Your task to perform on an android device: open app "File Manager" Image 0: 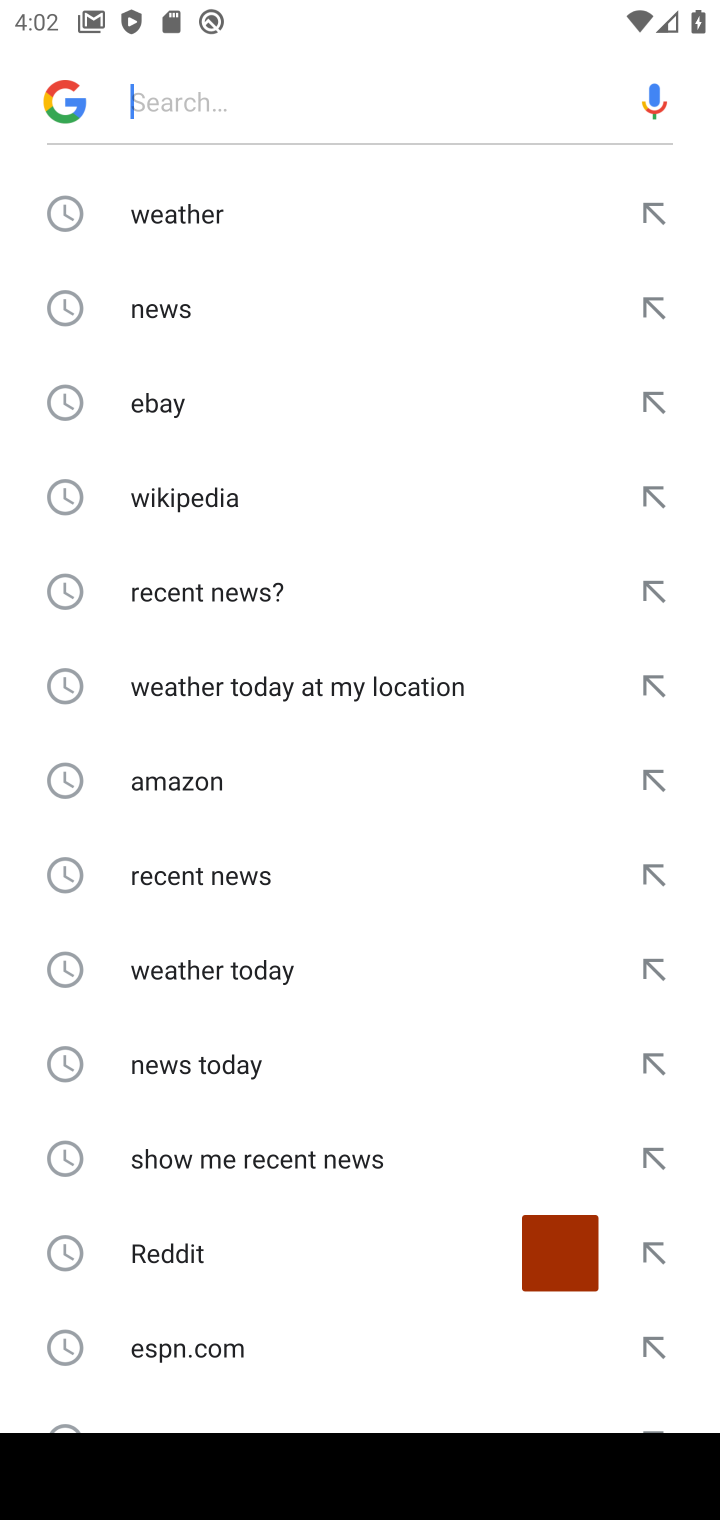
Step 0: click (565, 86)
Your task to perform on an android device: open app "File Manager" Image 1: 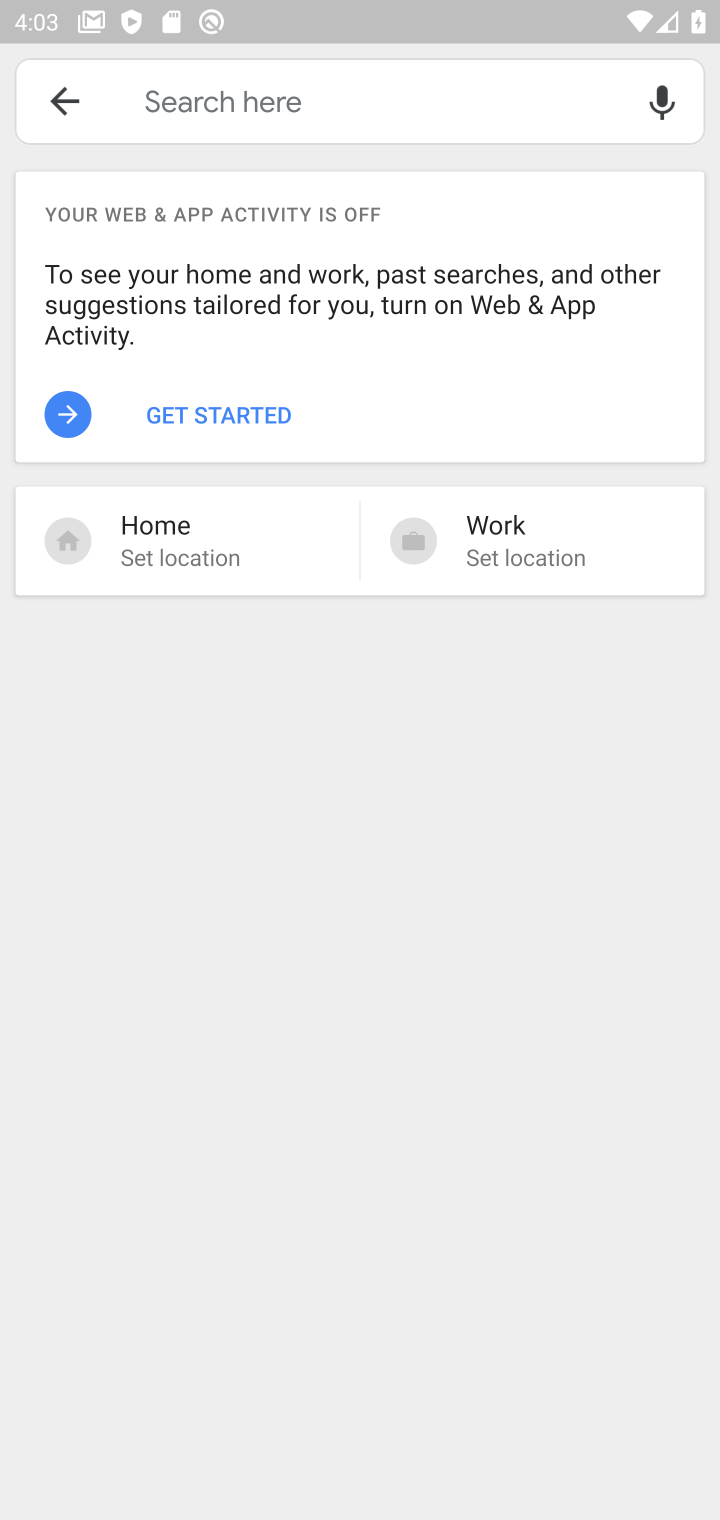
Step 1: press home button
Your task to perform on an android device: open app "File Manager" Image 2: 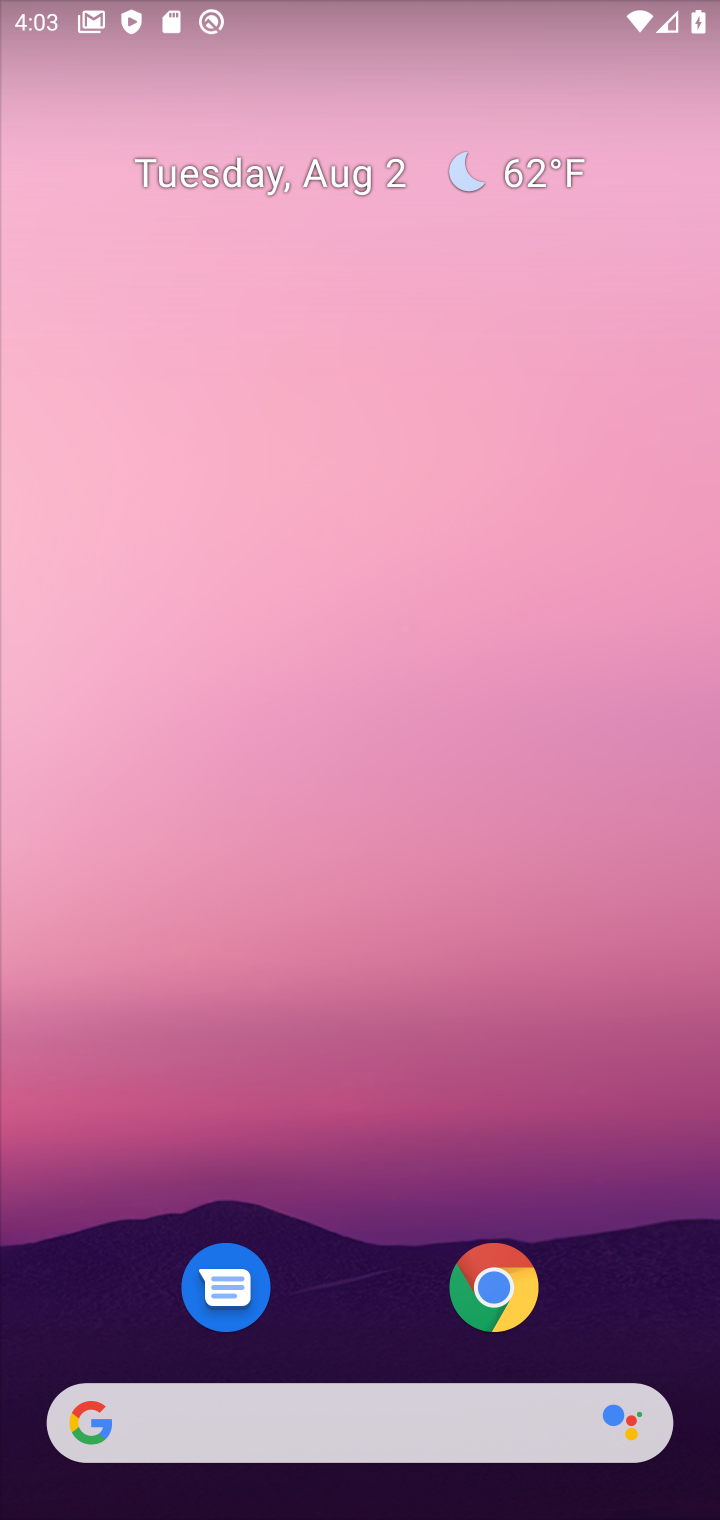
Step 2: drag from (362, 1177) to (438, 321)
Your task to perform on an android device: open app "File Manager" Image 3: 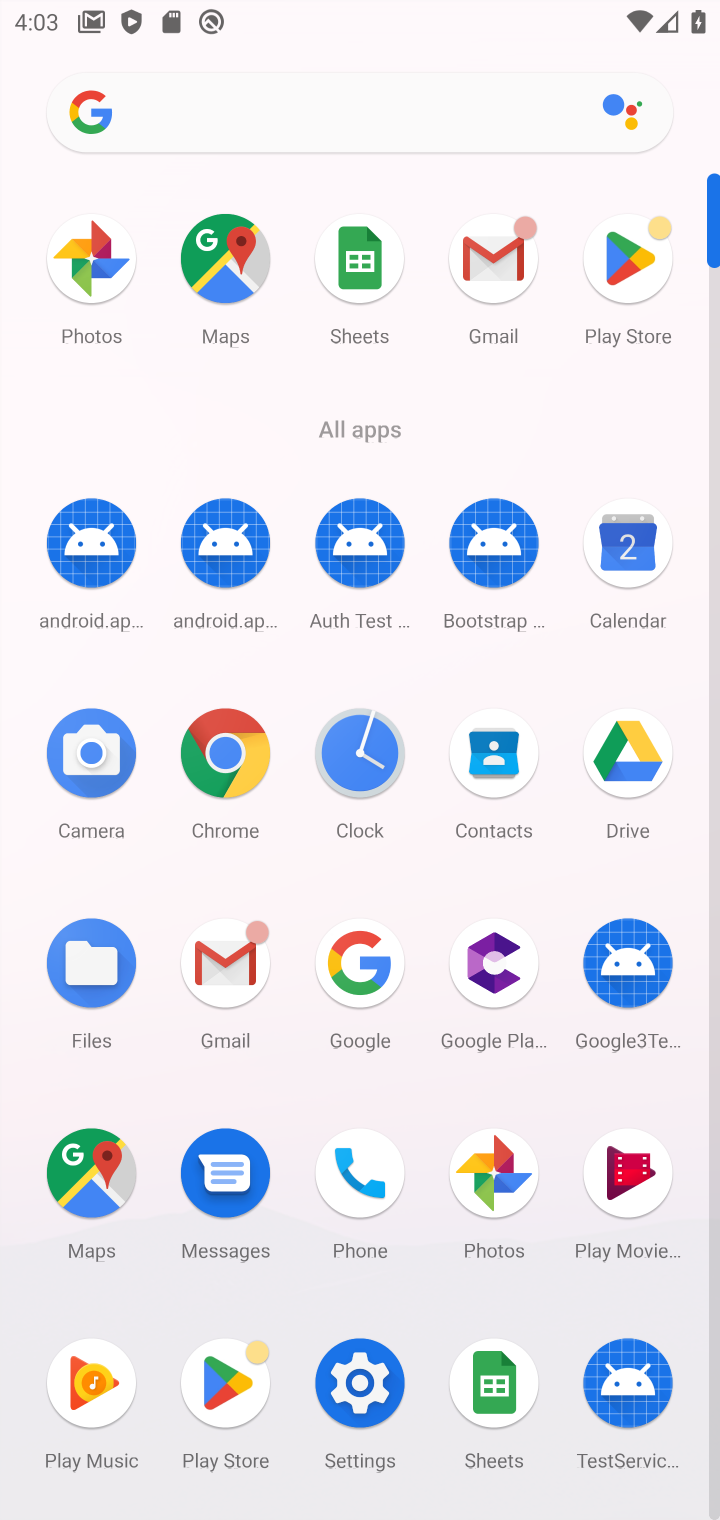
Step 3: click (248, 1392)
Your task to perform on an android device: open app "File Manager" Image 4: 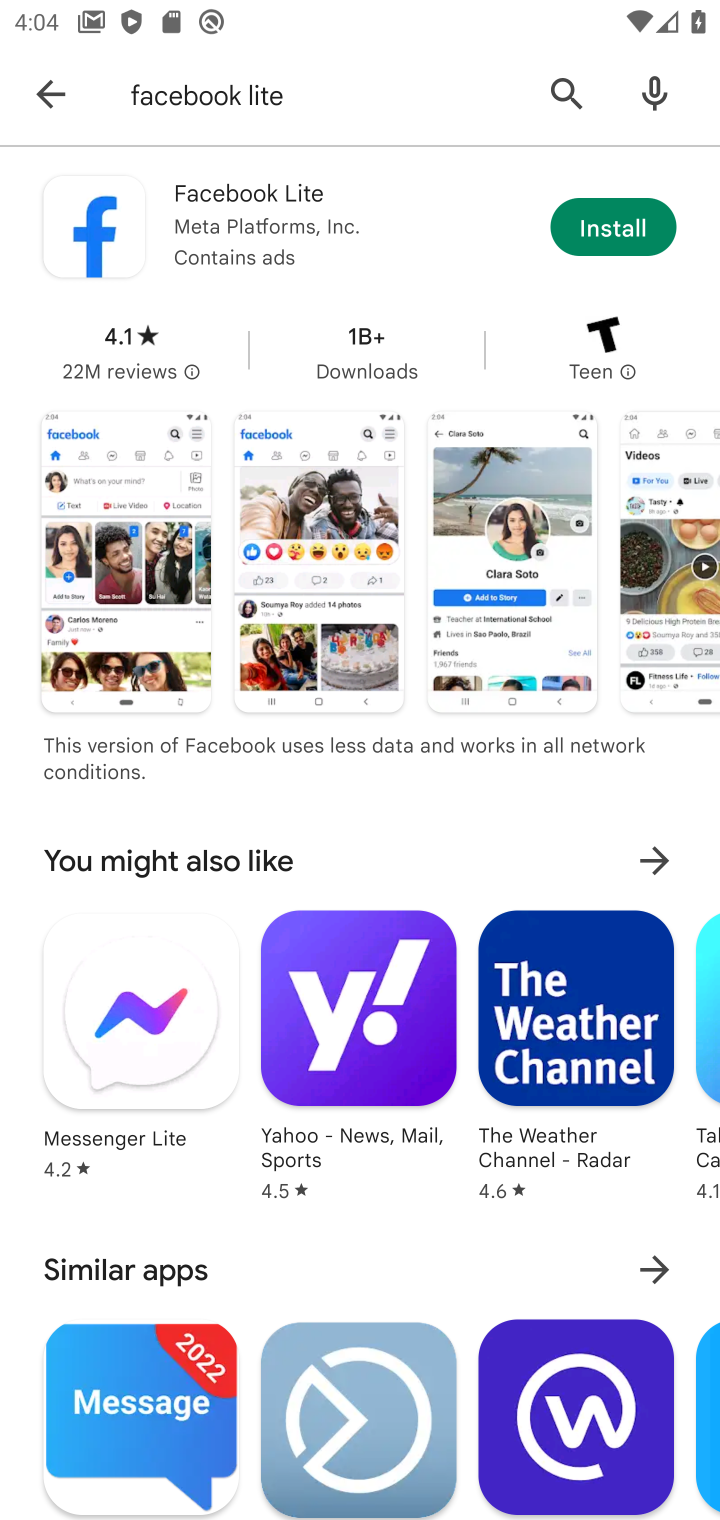
Step 4: click (579, 105)
Your task to perform on an android device: open app "File Manager" Image 5: 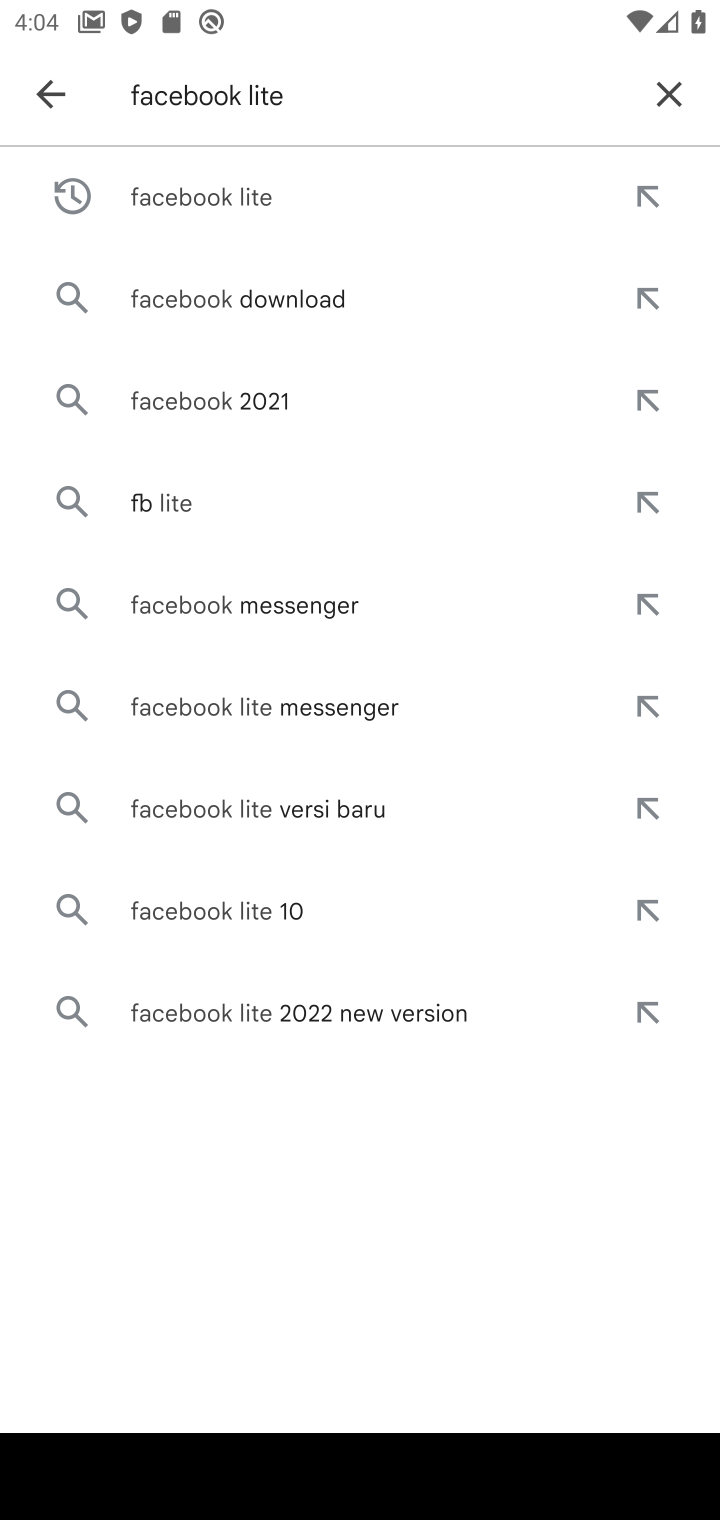
Step 5: click (660, 108)
Your task to perform on an android device: open app "File Manager" Image 6: 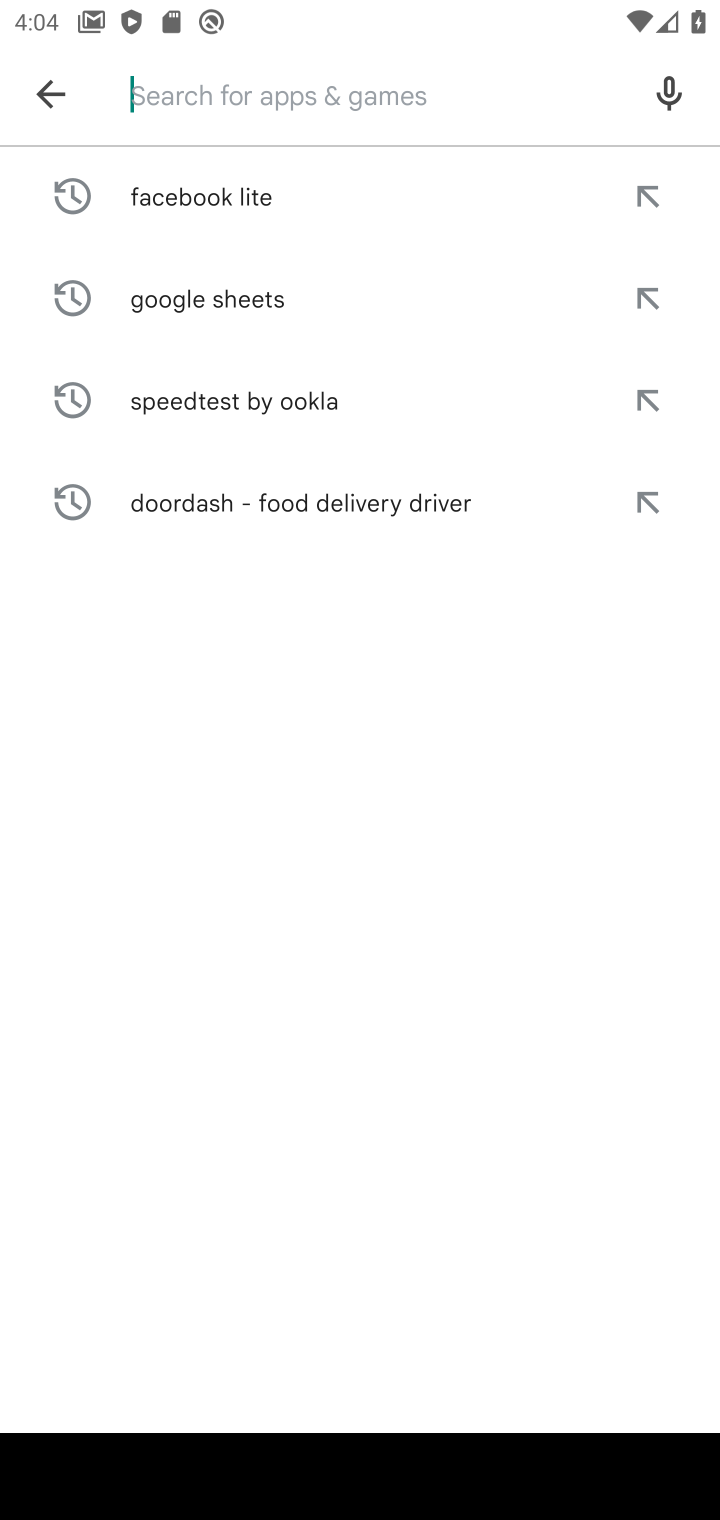
Step 6: type "File Manager"
Your task to perform on an android device: open app "File Manager" Image 7: 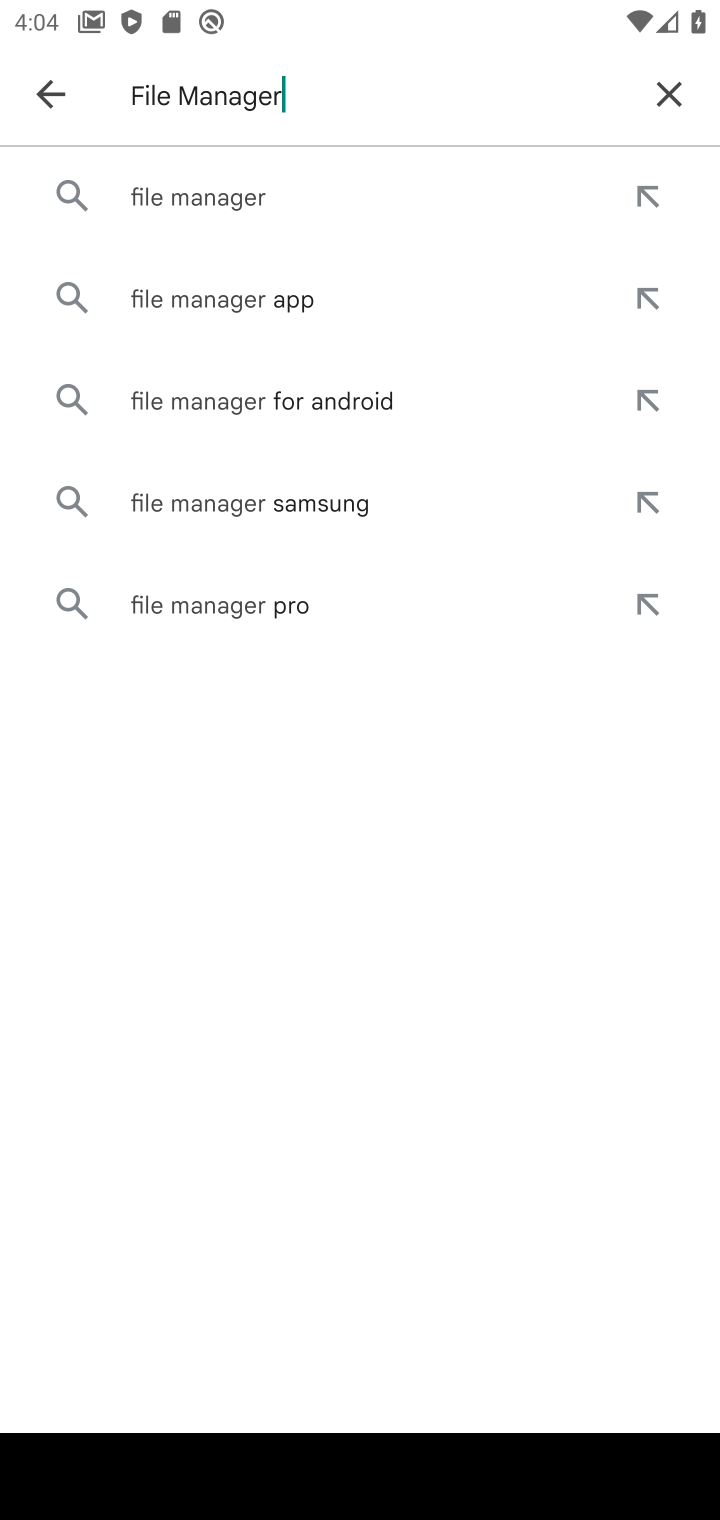
Step 7: click (230, 219)
Your task to perform on an android device: open app "File Manager" Image 8: 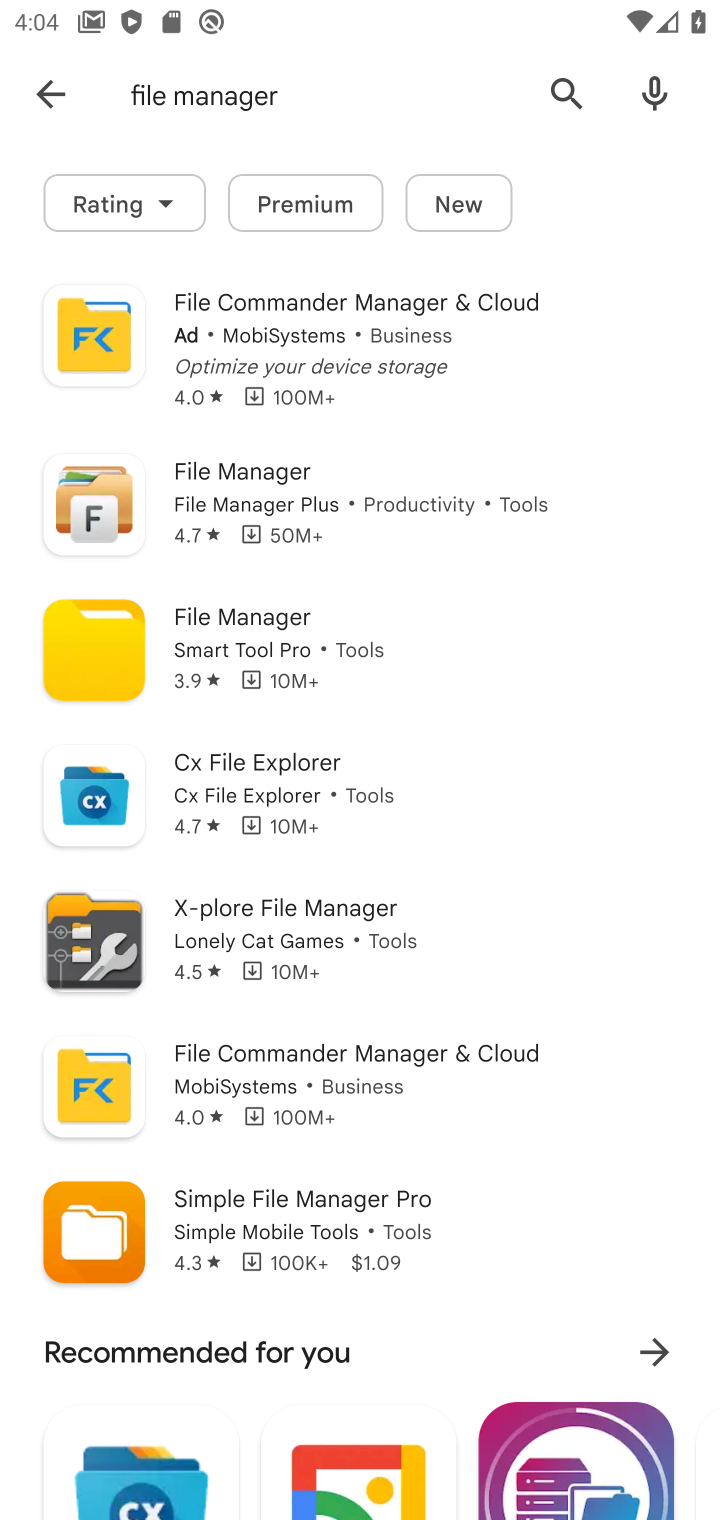
Step 8: task complete